Your task to perform on an android device: Do I have any events tomorrow? Image 0: 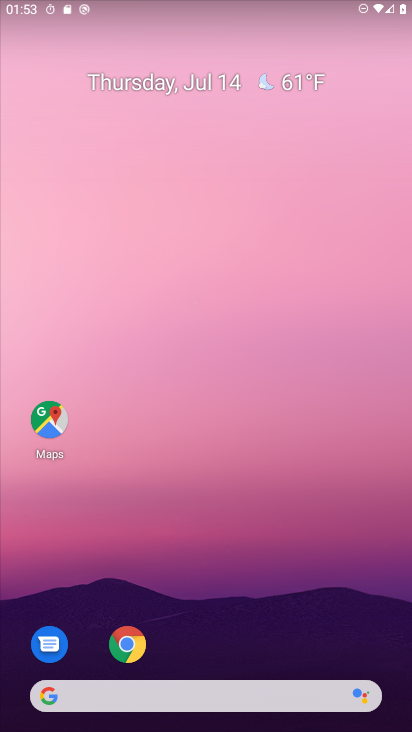
Step 0: drag from (298, 548) to (155, 69)
Your task to perform on an android device: Do I have any events tomorrow? Image 1: 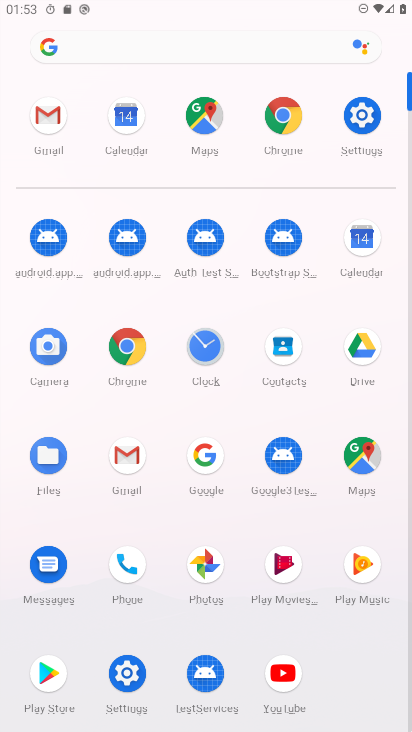
Step 1: click (361, 242)
Your task to perform on an android device: Do I have any events tomorrow? Image 2: 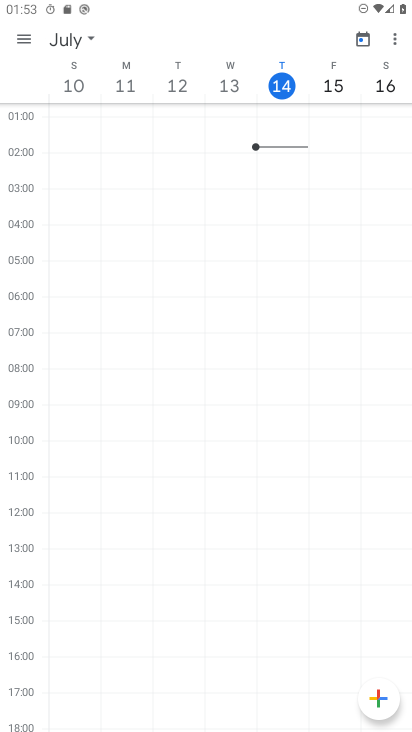
Step 2: click (333, 82)
Your task to perform on an android device: Do I have any events tomorrow? Image 3: 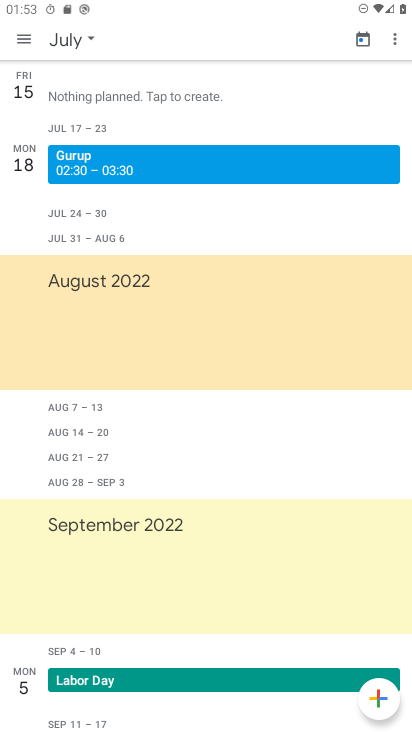
Step 3: task complete